Your task to perform on an android device: toggle pop-ups in chrome Image 0: 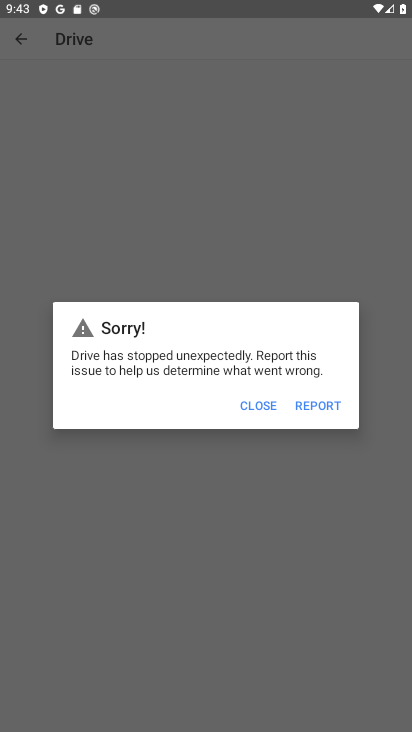
Step 0: press home button
Your task to perform on an android device: toggle pop-ups in chrome Image 1: 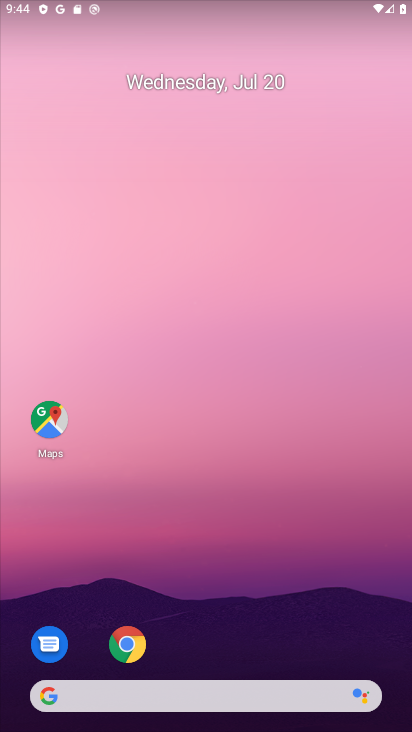
Step 1: click (128, 647)
Your task to perform on an android device: toggle pop-ups in chrome Image 2: 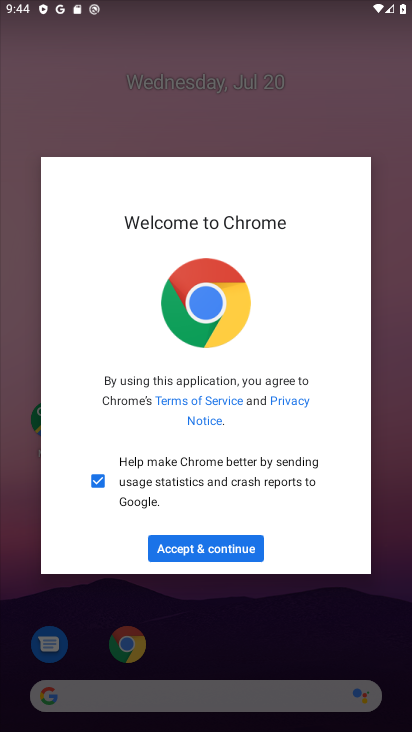
Step 2: click (210, 551)
Your task to perform on an android device: toggle pop-ups in chrome Image 3: 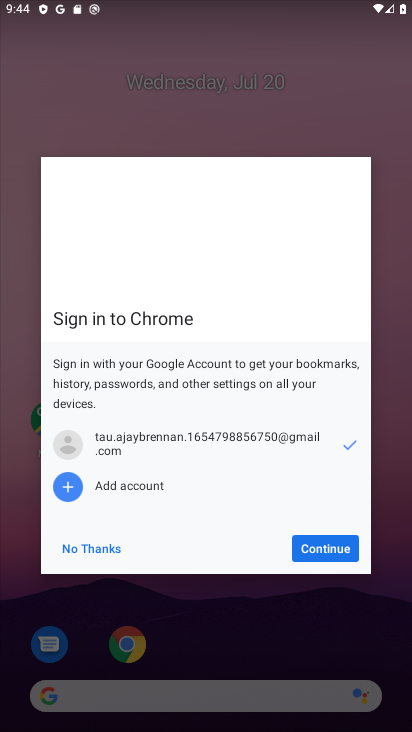
Step 3: click (306, 550)
Your task to perform on an android device: toggle pop-ups in chrome Image 4: 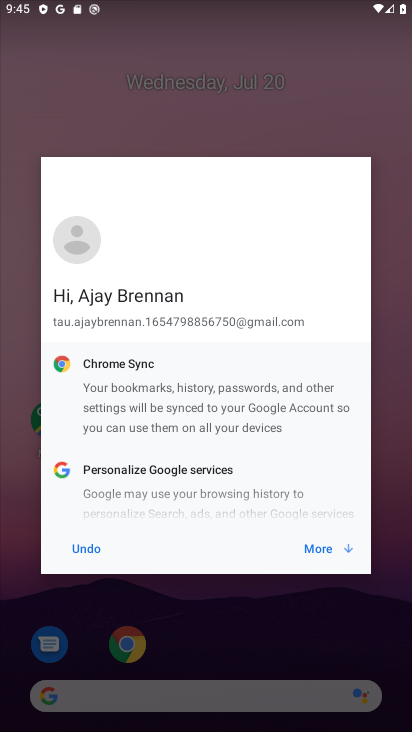
Step 4: click (331, 547)
Your task to perform on an android device: toggle pop-ups in chrome Image 5: 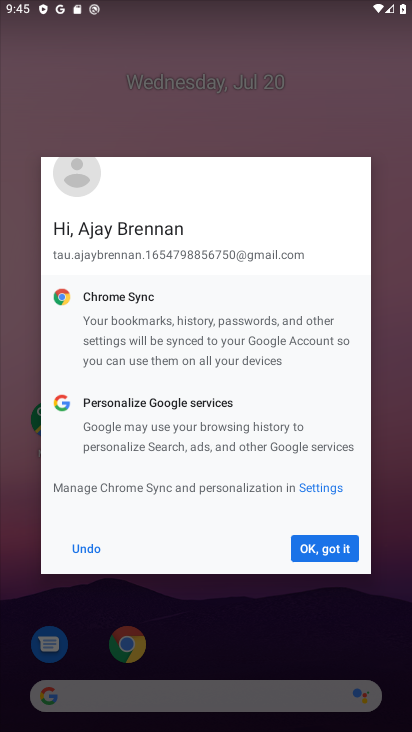
Step 5: click (331, 547)
Your task to perform on an android device: toggle pop-ups in chrome Image 6: 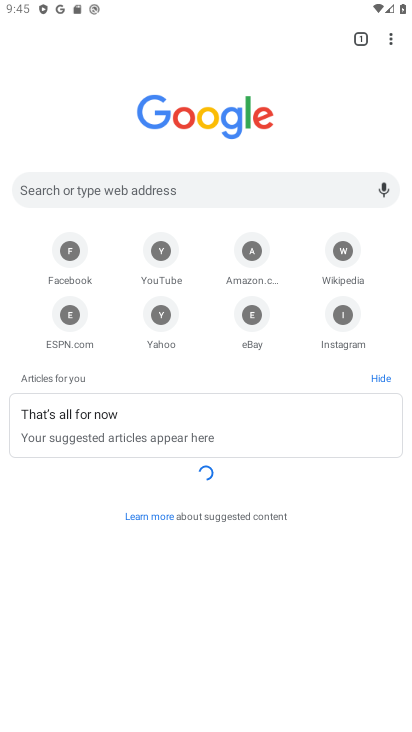
Step 6: task complete